Your task to perform on an android device: open app "Instagram" (install if not already installed) and go to login screen Image 0: 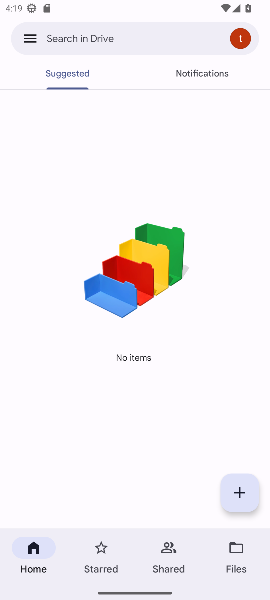
Step 0: press home button
Your task to perform on an android device: open app "Instagram" (install if not already installed) and go to login screen Image 1: 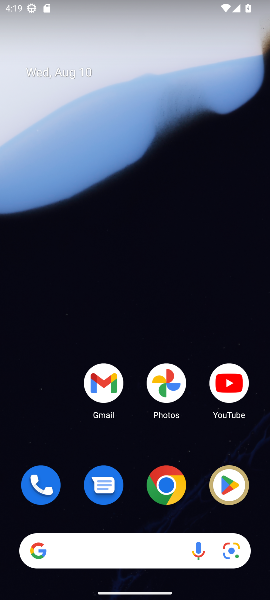
Step 1: drag from (162, 472) to (168, 268)
Your task to perform on an android device: open app "Instagram" (install if not already installed) and go to login screen Image 2: 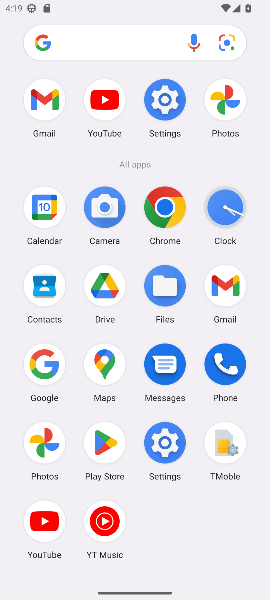
Step 2: click (100, 441)
Your task to perform on an android device: open app "Instagram" (install if not already installed) and go to login screen Image 3: 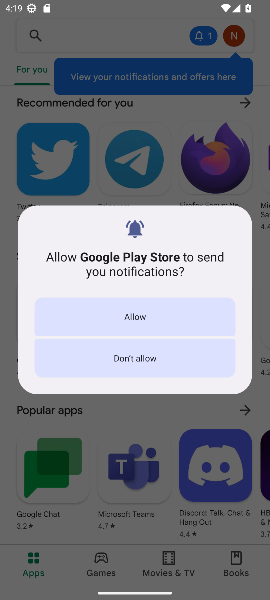
Step 3: click (133, 306)
Your task to perform on an android device: open app "Instagram" (install if not already installed) and go to login screen Image 4: 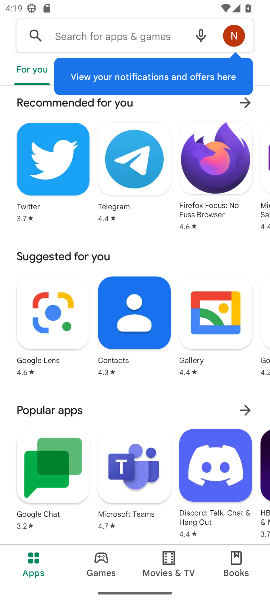
Step 4: click (74, 34)
Your task to perform on an android device: open app "Instagram" (install if not already installed) and go to login screen Image 5: 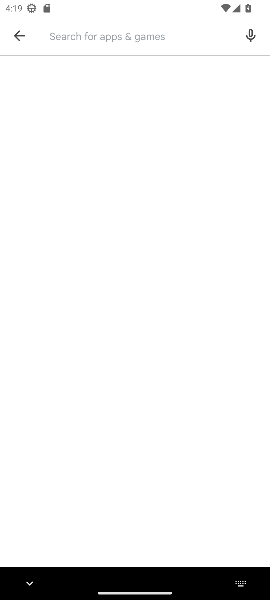
Step 5: click (67, 38)
Your task to perform on an android device: open app "Instagram" (install if not already installed) and go to login screen Image 6: 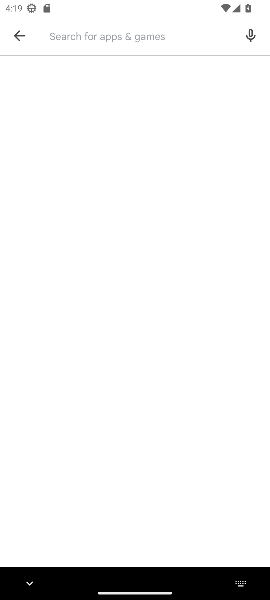
Step 6: type "Instagram"
Your task to perform on an android device: open app "Instagram" (install if not already installed) and go to login screen Image 7: 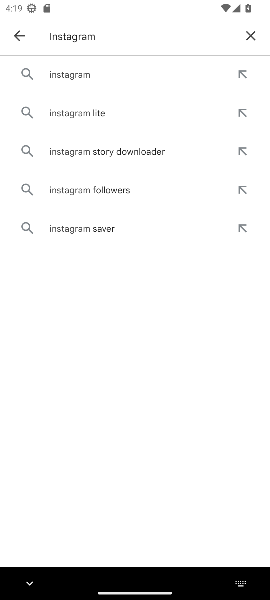
Step 7: click (96, 77)
Your task to perform on an android device: open app "Instagram" (install if not already installed) and go to login screen Image 8: 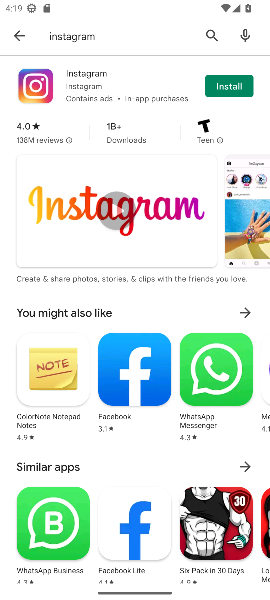
Step 8: click (231, 80)
Your task to perform on an android device: open app "Instagram" (install if not already installed) and go to login screen Image 9: 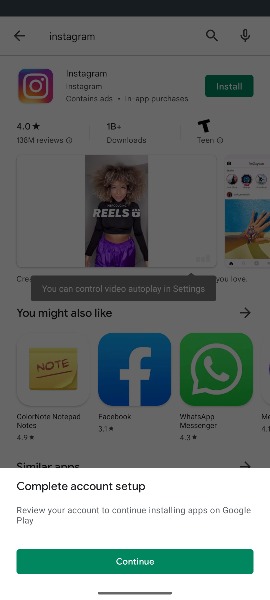
Step 9: click (163, 569)
Your task to perform on an android device: open app "Instagram" (install if not already installed) and go to login screen Image 10: 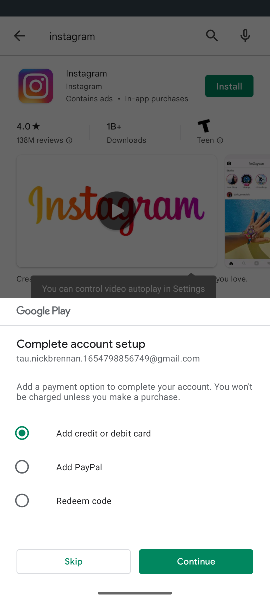
Step 10: click (86, 564)
Your task to perform on an android device: open app "Instagram" (install if not already installed) and go to login screen Image 11: 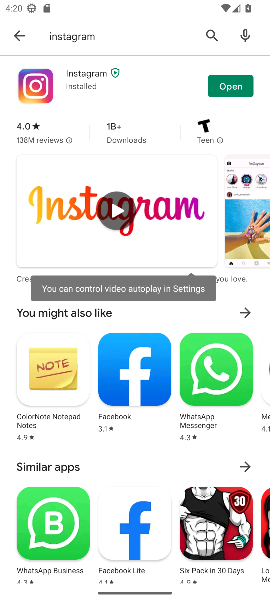
Step 11: click (228, 81)
Your task to perform on an android device: open app "Instagram" (install if not already installed) and go to login screen Image 12: 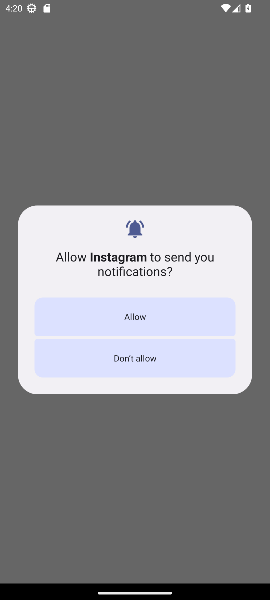
Step 12: task complete